Your task to perform on an android device: Open Google Maps and go to "Timeline" Image 0: 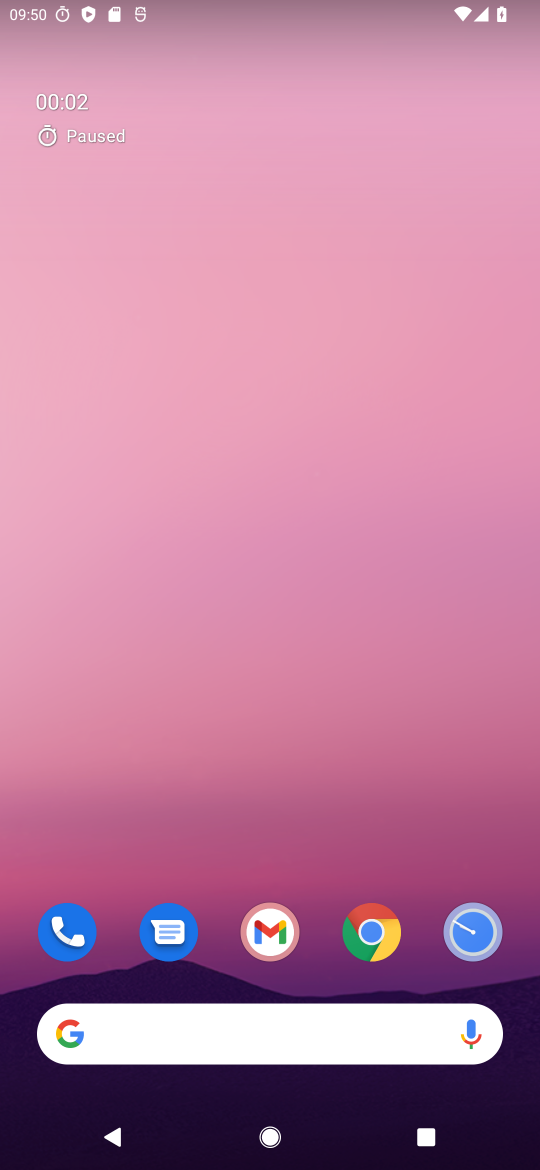
Step 0: press home button
Your task to perform on an android device: Open Google Maps and go to "Timeline" Image 1: 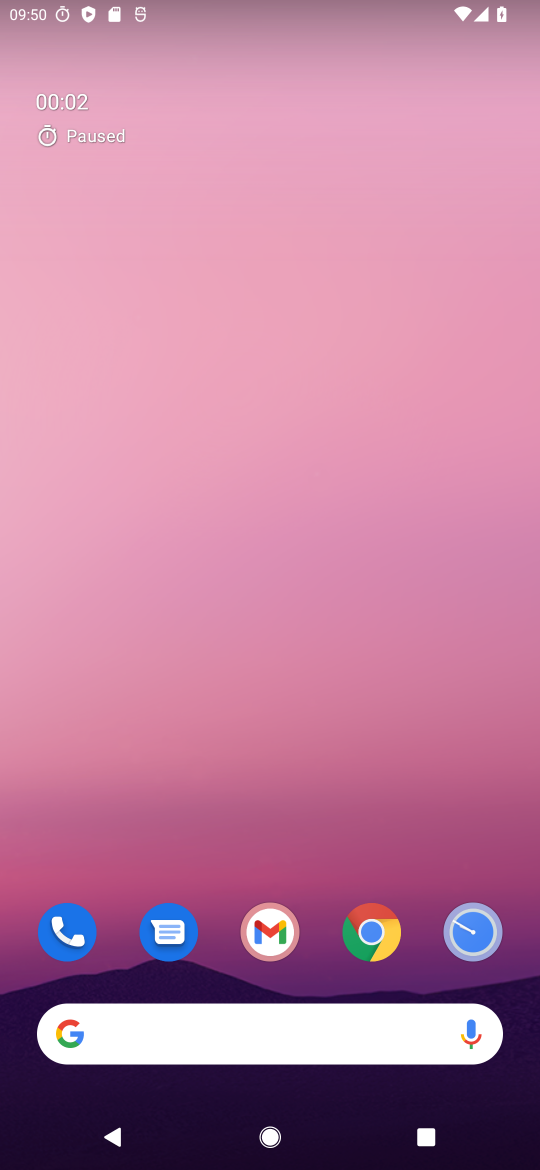
Step 1: drag from (315, 1048) to (402, 258)
Your task to perform on an android device: Open Google Maps and go to "Timeline" Image 2: 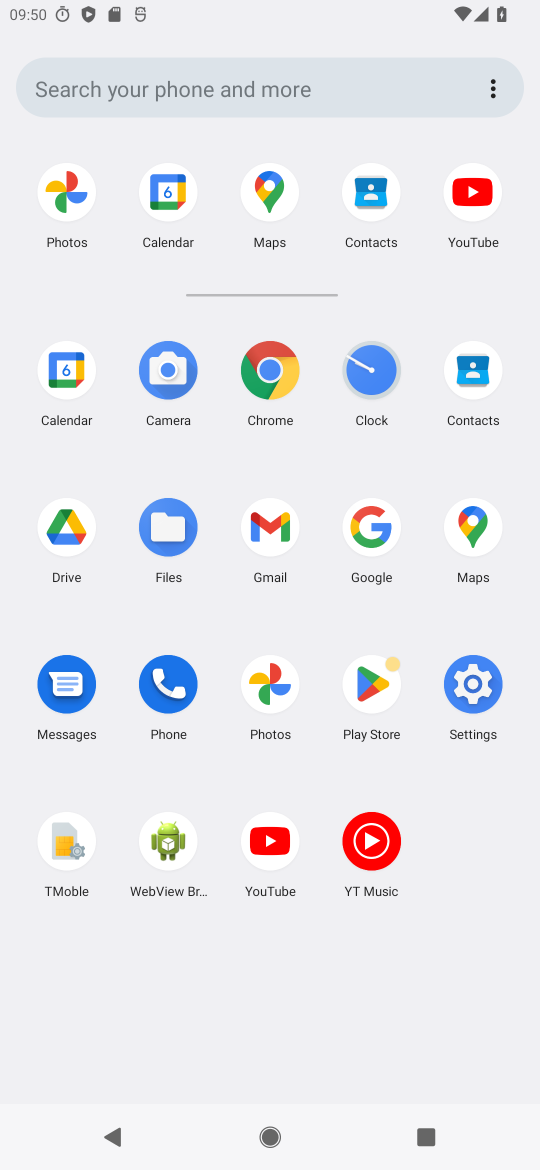
Step 2: click (470, 533)
Your task to perform on an android device: Open Google Maps and go to "Timeline" Image 3: 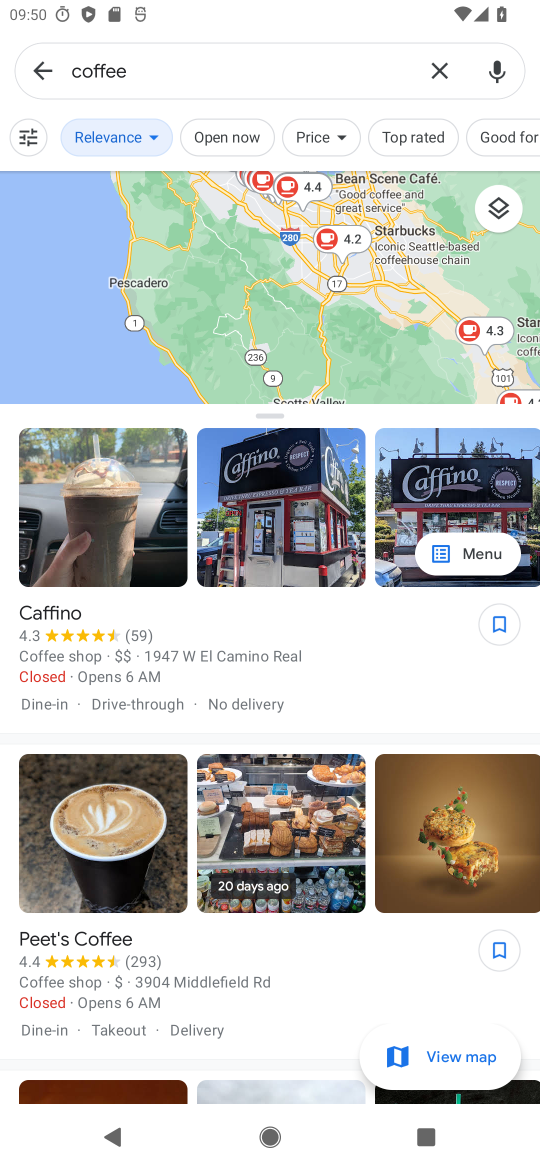
Step 3: click (23, 126)
Your task to perform on an android device: Open Google Maps and go to "Timeline" Image 4: 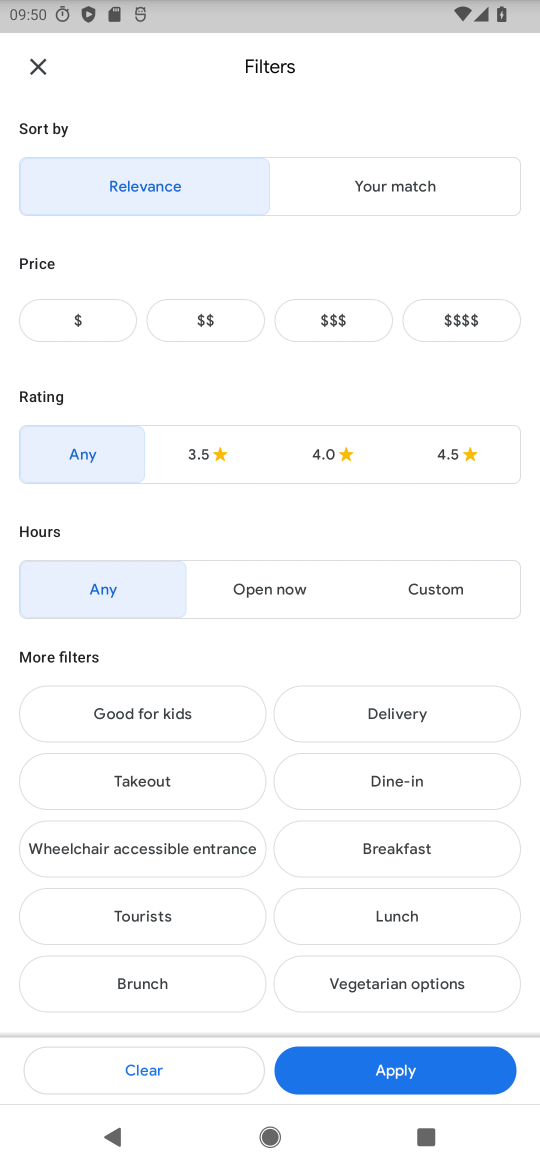
Step 4: click (43, 68)
Your task to perform on an android device: Open Google Maps and go to "Timeline" Image 5: 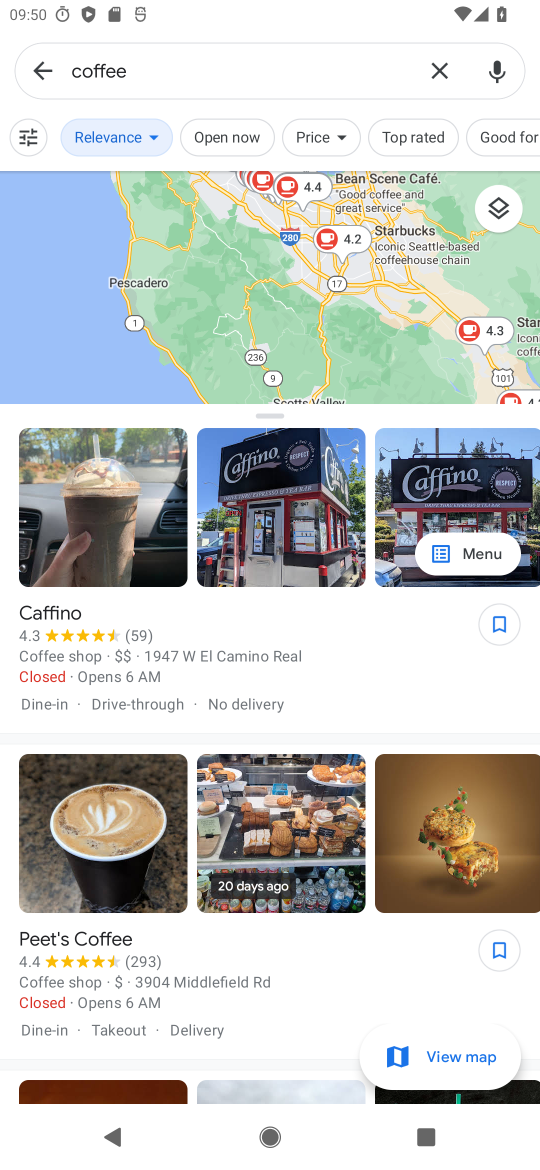
Step 5: click (43, 69)
Your task to perform on an android device: Open Google Maps and go to "Timeline" Image 6: 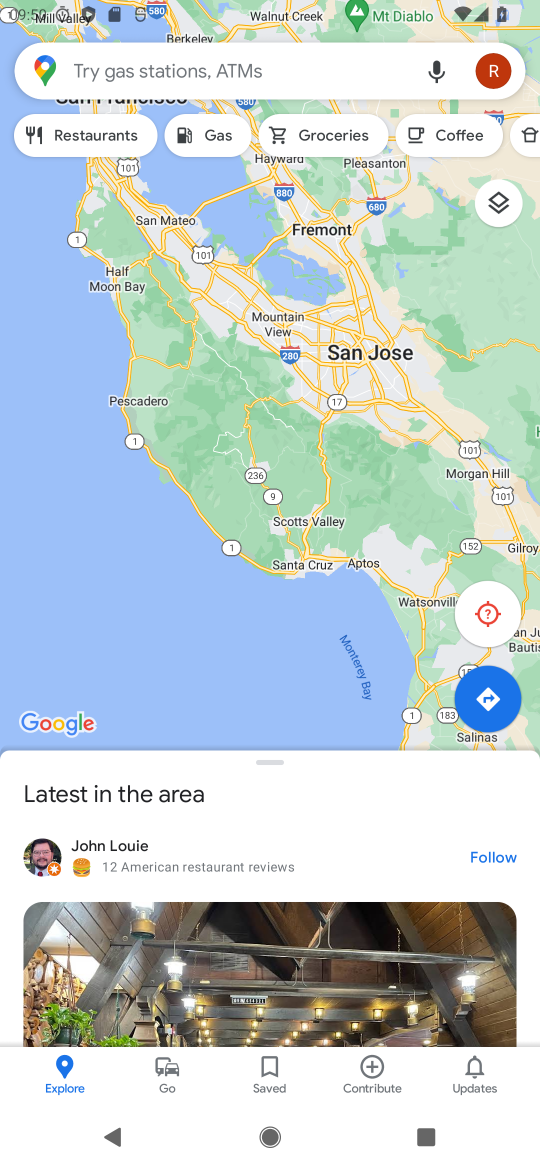
Step 6: click (486, 65)
Your task to perform on an android device: Open Google Maps and go to "Timeline" Image 7: 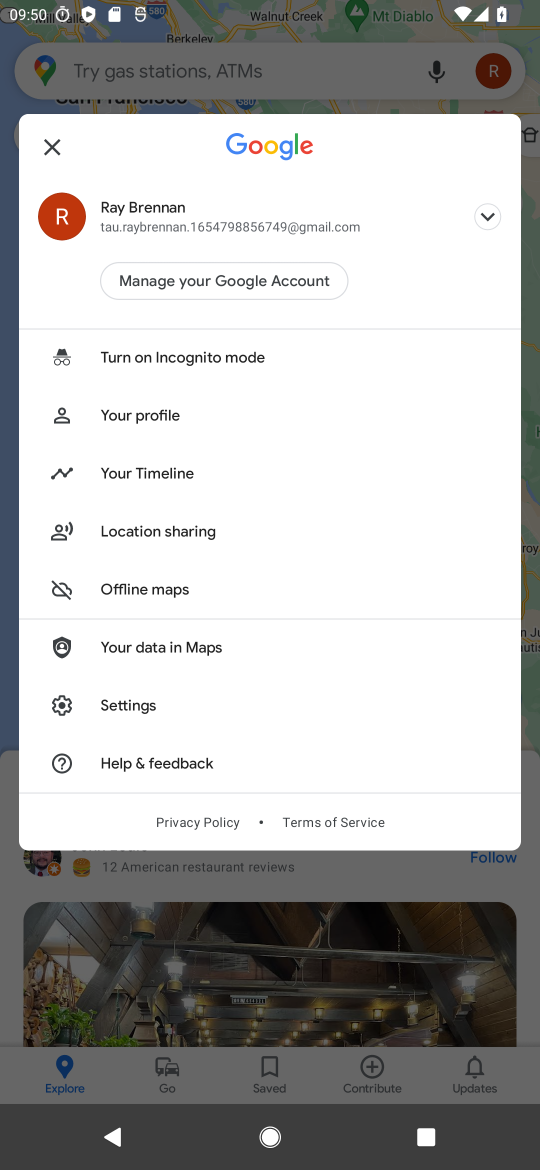
Step 7: click (131, 474)
Your task to perform on an android device: Open Google Maps and go to "Timeline" Image 8: 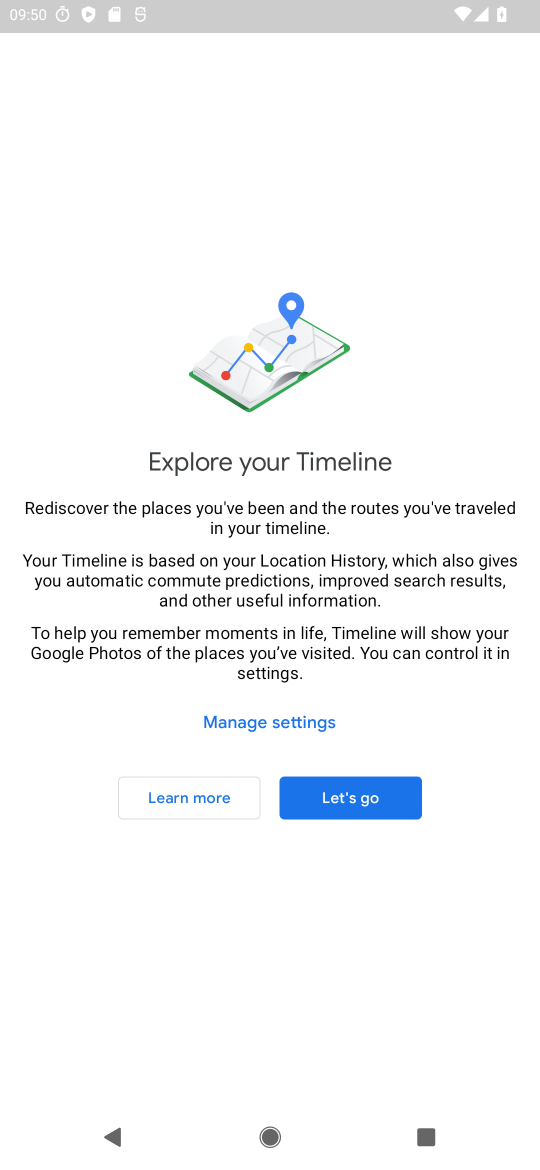
Step 8: click (333, 803)
Your task to perform on an android device: Open Google Maps and go to "Timeline" Image 9: 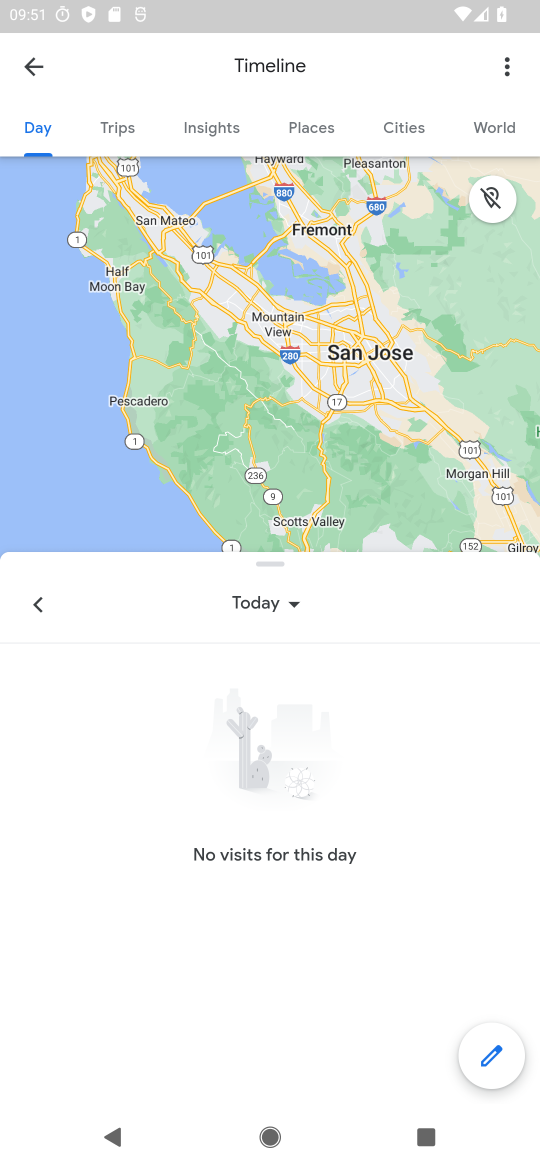
Step 9: task complete